Your task to perform on an android device: empty trash in the gmail app Image 0: 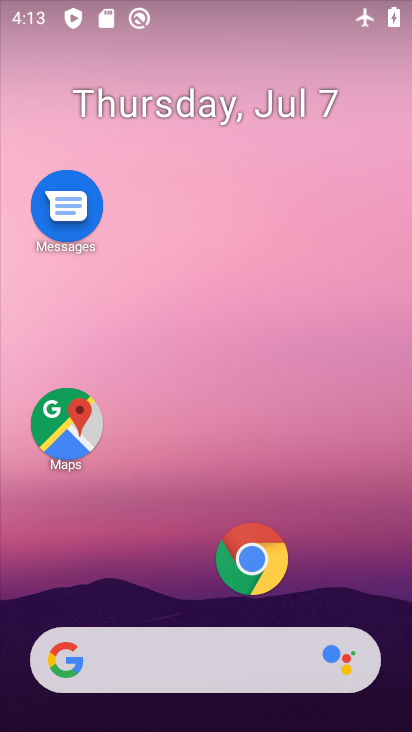
Step 0: drag from (183, 603) to (184, 30)
Your task to perform on an android device: empty trash in the gmail app Image 1: 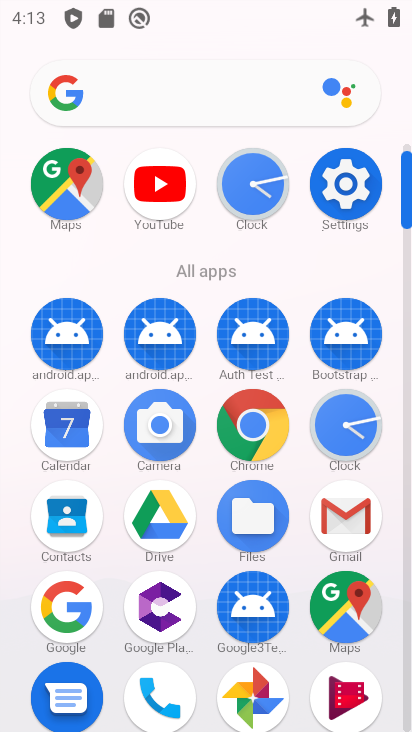
Step 1: click (335, 532)
Your task to perform on an android device: empty trash in the gmail app Image 2: 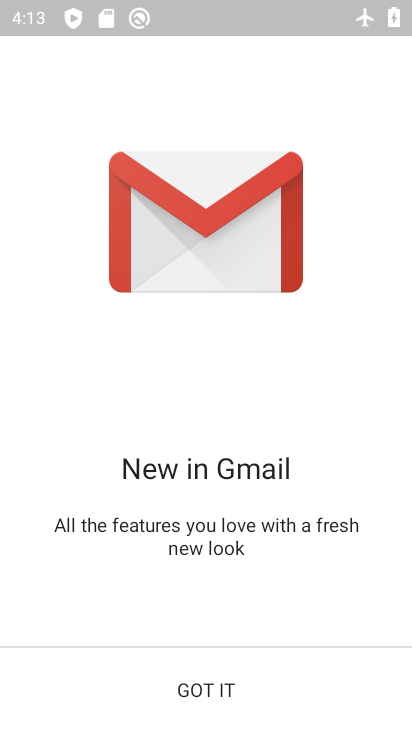
Step 2: click (260, 690)
Your task to perform on an android device: empty trash in the gmail app Image 3: 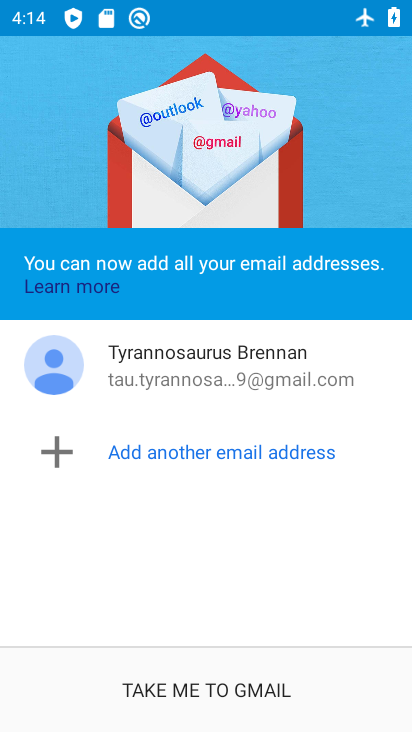
Step 3: click (277, 678)
Your task to perform on an android device: empty trash in the gmail app Image 4: 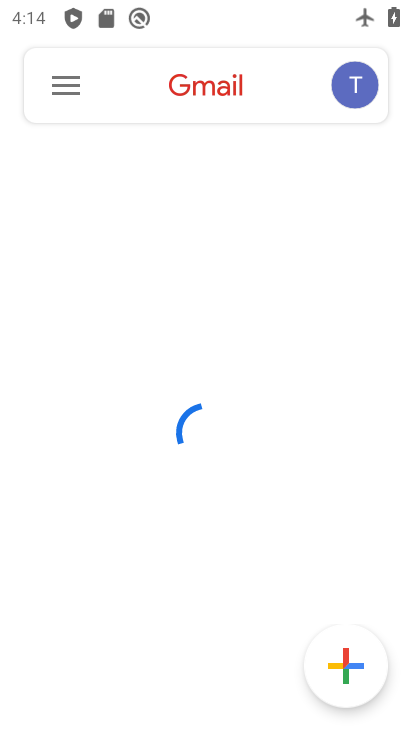
Step 4: click (50, 83)
Your task to perform on an android device: empty trash in the gmail app Image 5: 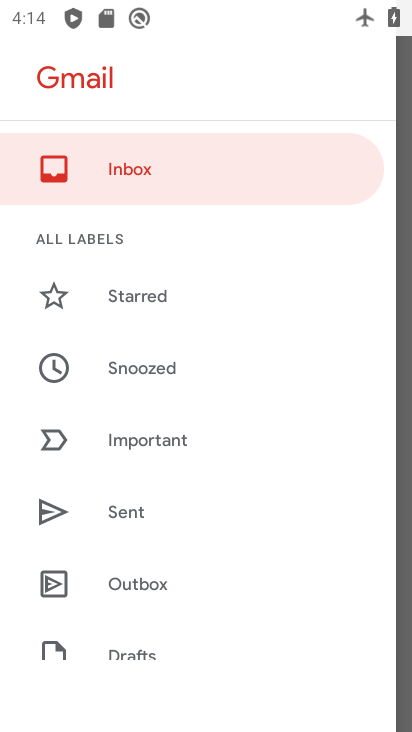
Step 5: drag from (127, 547) to (122, 130)
Your task to perform on an android device: empty trash in the gmail app Image 6: 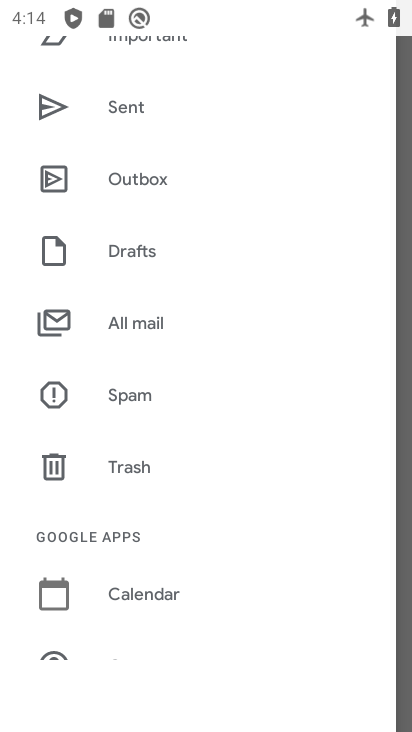
Step 6: click (142, 476)
Your task to perform on an android device: empty trash in the gmail app Image 7: 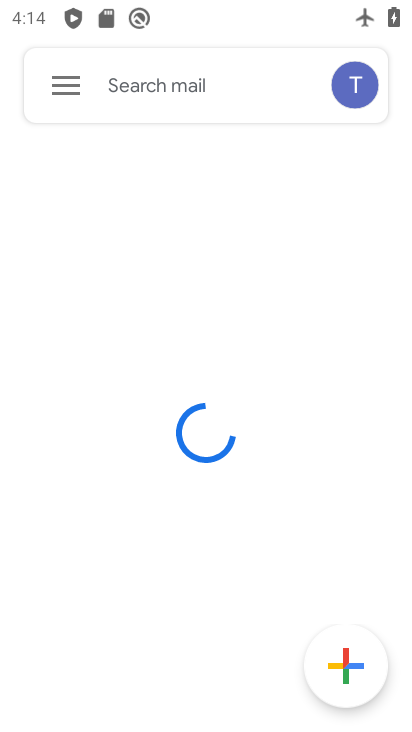
Step 7: task complete